Your task to perform on an android device: What is the news today? Image 0: 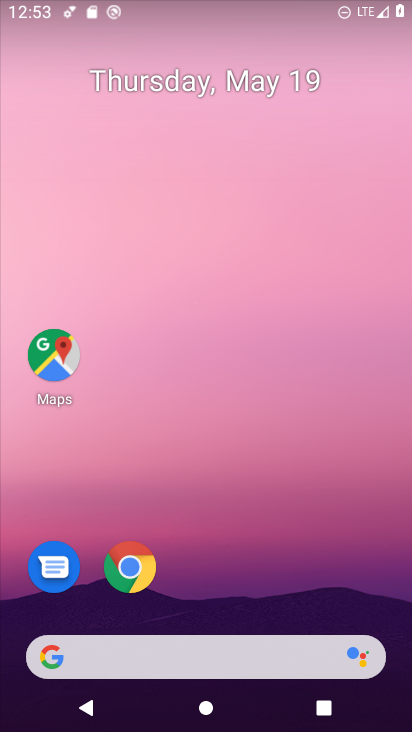
Step 0: click (167, 659)
Your task to perform on an android device: What is the news today? Image 1: 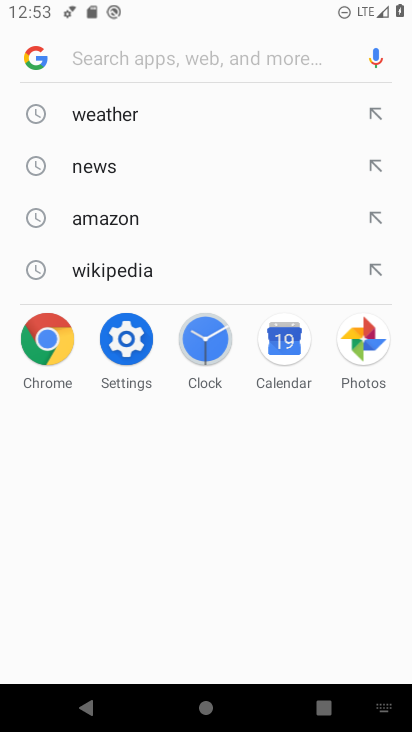
Step 1: click (65, 172)
Your task to perform on an android device: What is the news today? Image 2: 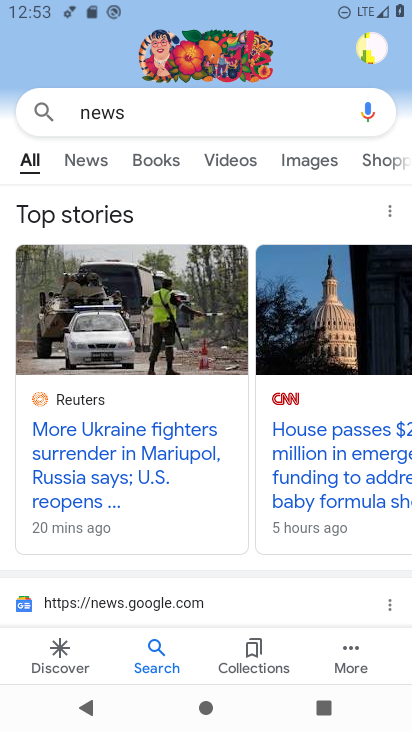
Step 2: click (76, 156)
Your task to perform on an android device: What is the news today? Image 3: 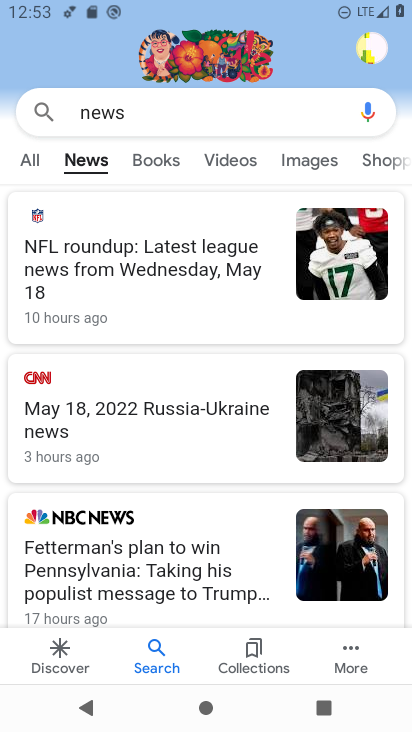
Step 3: task complete